Your task to perform on an android device: open app "ColorNote Notepad Notes" Image 0: 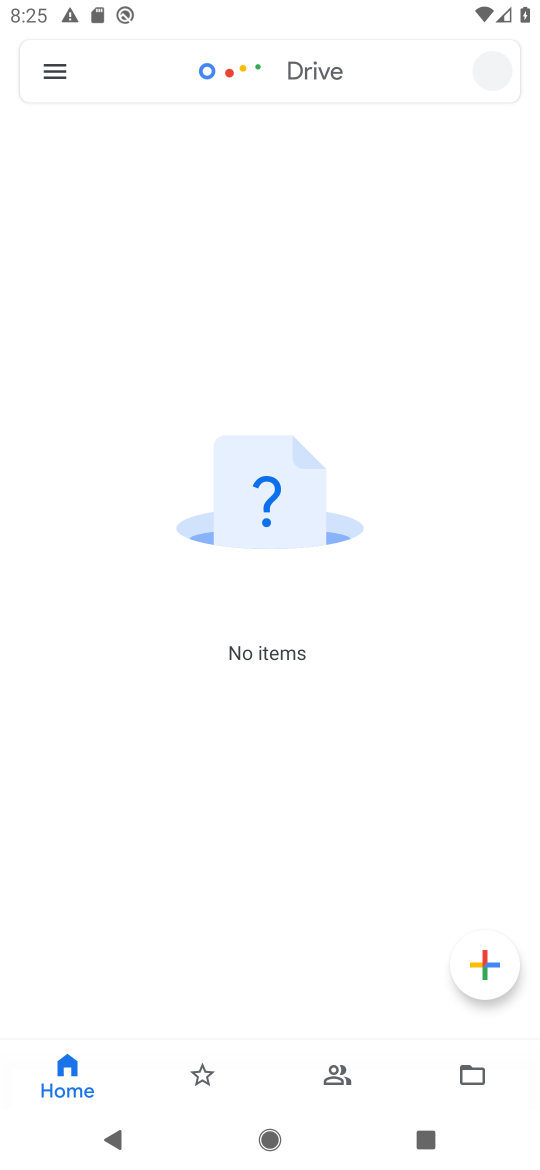
Step 0: press home button
Your task to perform on an android device: open app "ColorNote Notepad Notes" Image 1: 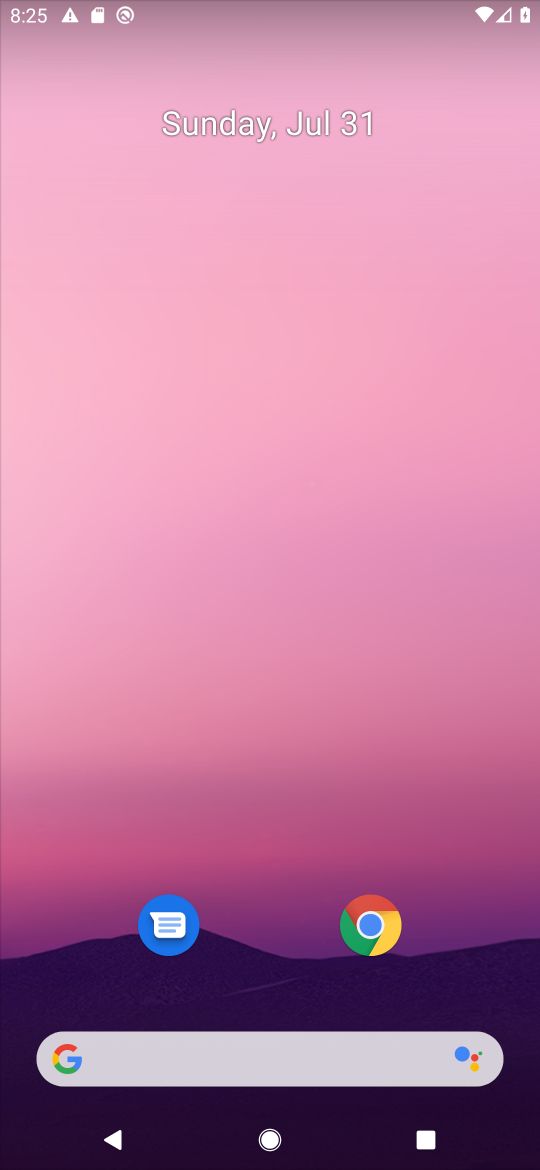
Step 1: drag from (258, 908) to (234, 222)
Your task to perform on an android device: open app "ColorNote Notepad Notes" Image 2: 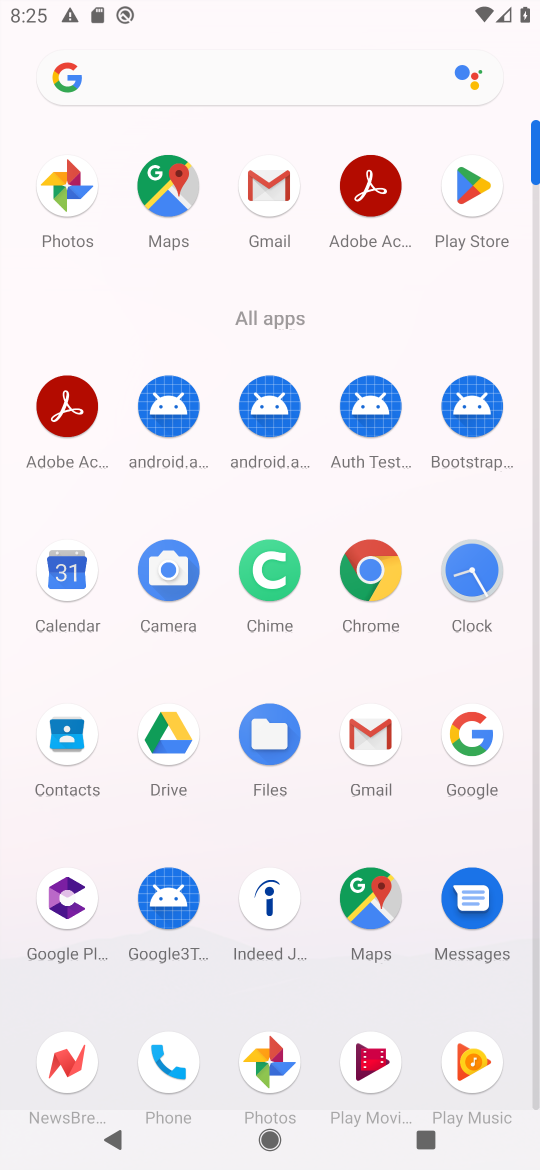
Step 2: click (479, 194)
Your task to perform on an android device: open app "ColorNote Notepad Notes" Image 3: 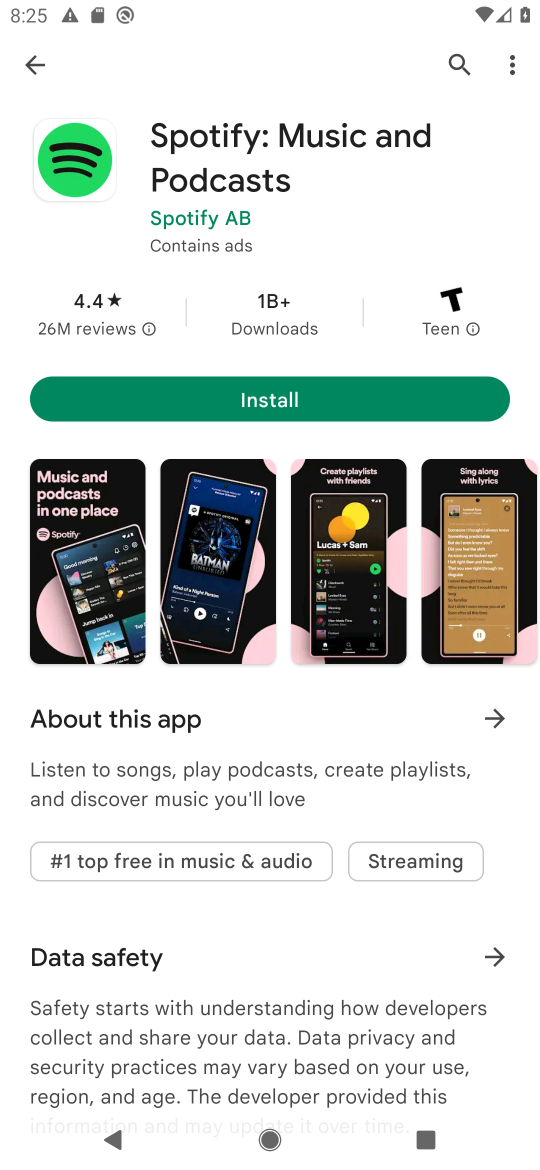
Step 3: click (463, 70)
Your task to perform on an android device: open app "ColorNote Notepad Notes" Image 4: 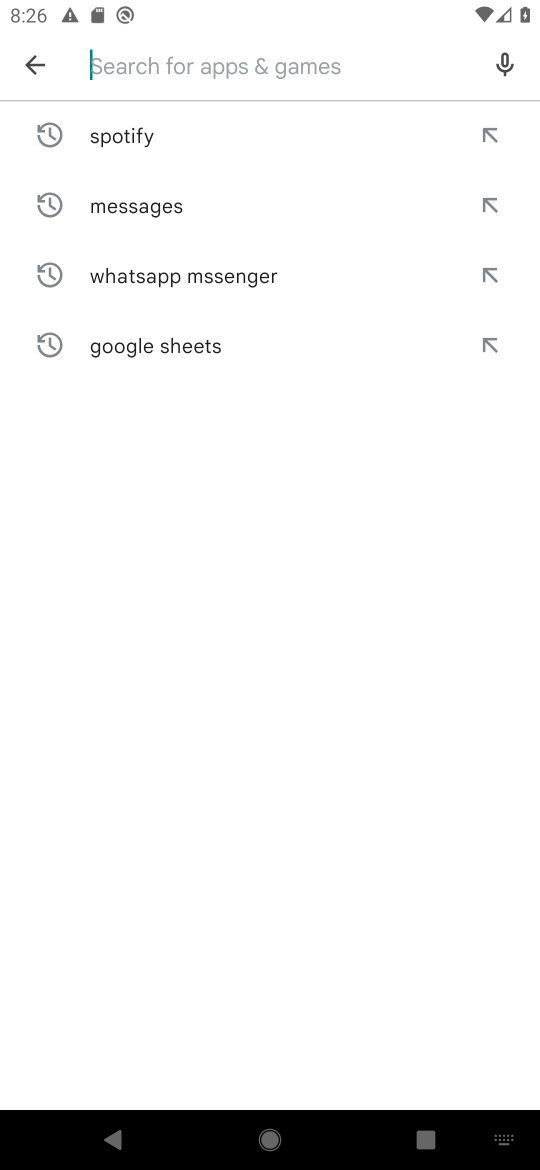
Step 4: type "colornote notepad notes"
Your task to perform on an android device: open app "ColorNote Notepad Notes" Image 5: 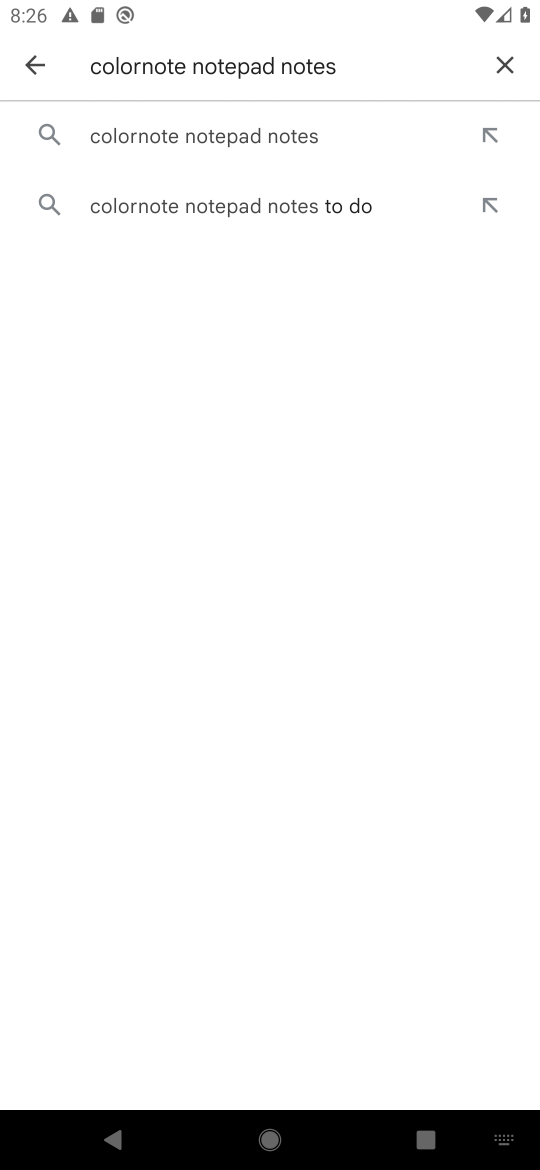
Step 5: click (364, 139)
Your task to perform on an android device: open app "ColorNote Notepad Notes" Image 6: 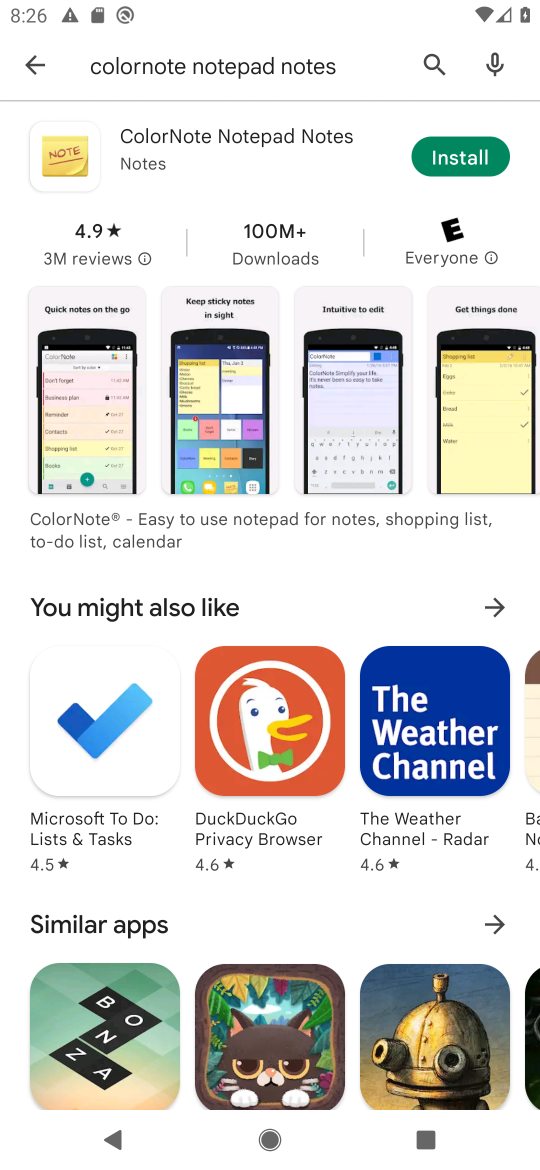
Step 6: click (295, 142)
Your task to perform on an android device: open app "ColorNote Notepad Notes" Image 7: 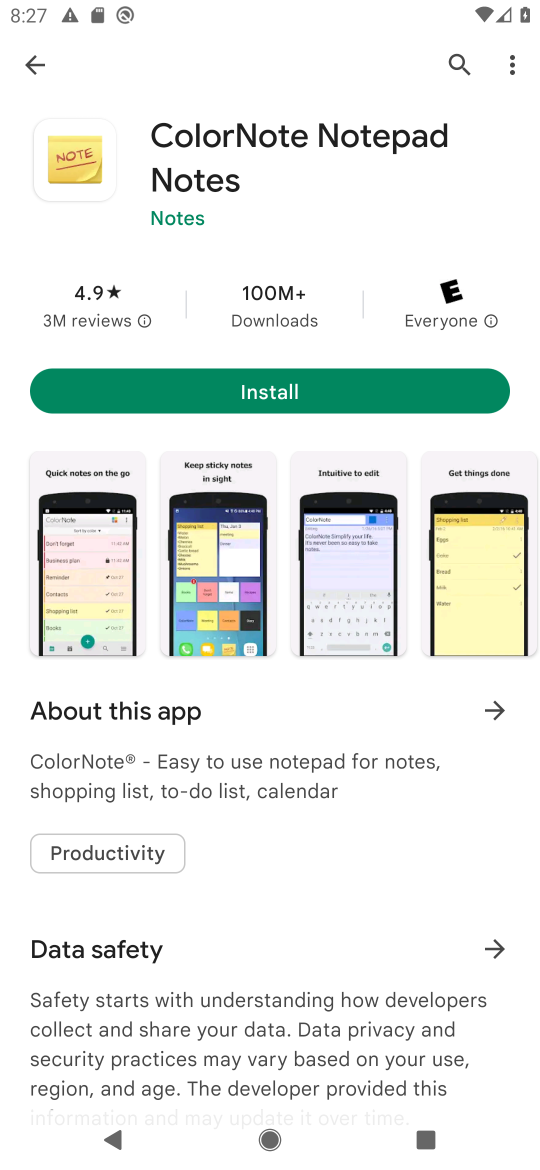
Step 7: task complete